Your task to perform on an android device: What is the news today? Image 0: 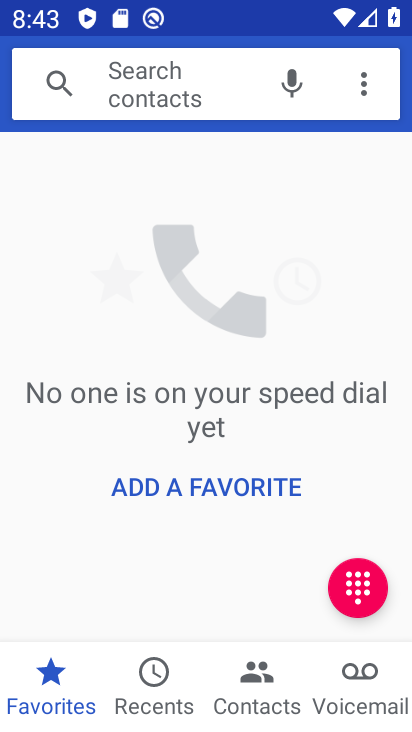
Step 0: press home button
Your task to perform on an android device: What is the news today? Image 1: 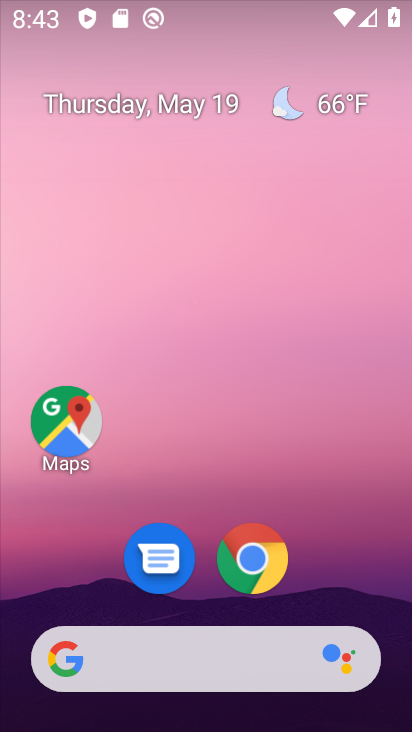
Step 1: drag from (187, 599) to (187, 246)
Your task to perform on an android device: What is the news today? Image 2: 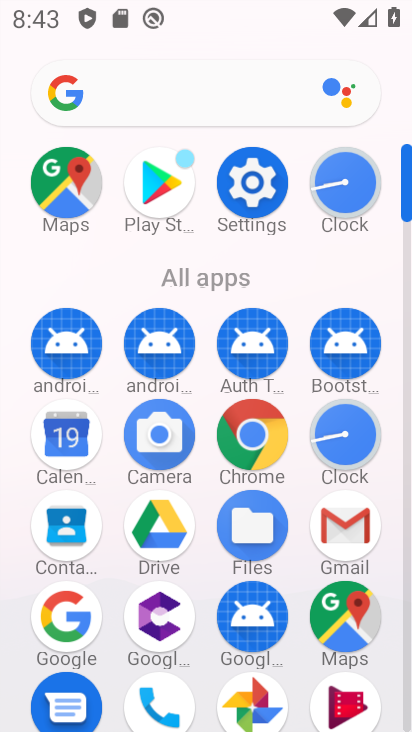
Step 2: click (65, 629)
Your task to perform on an android device: What is the news today? Image 3: 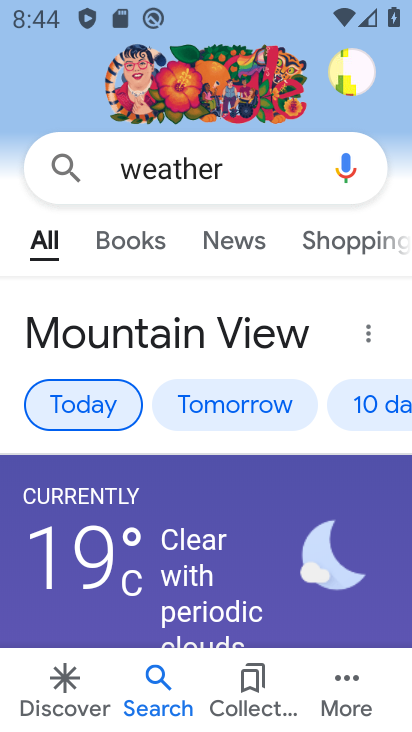
Step 3: click (249, 172)
Your task to perform on an android device: What is the news today? Image 4: 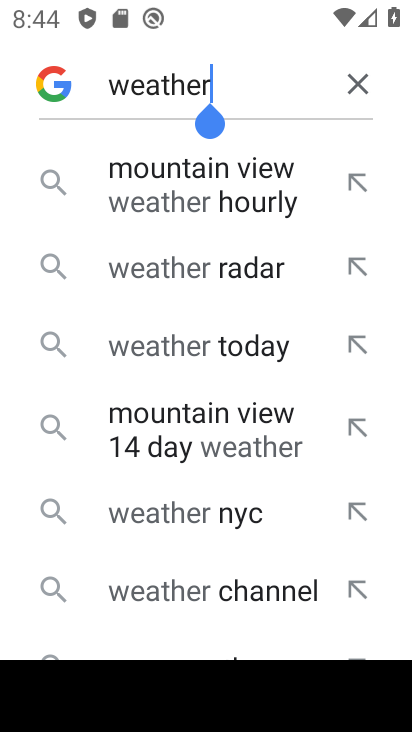
Step 4: click (339, 86)
Your task to perform on an android device: What is the news today? Image 5: 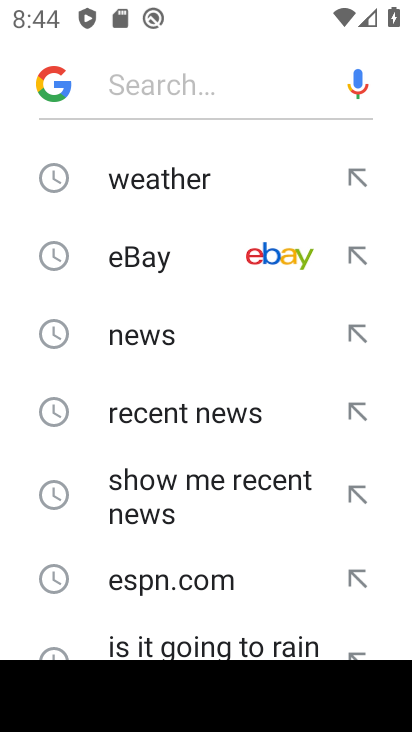
Step 5: click (136, 318)
Your task to perform on an android device: What is the news today? Image 6: 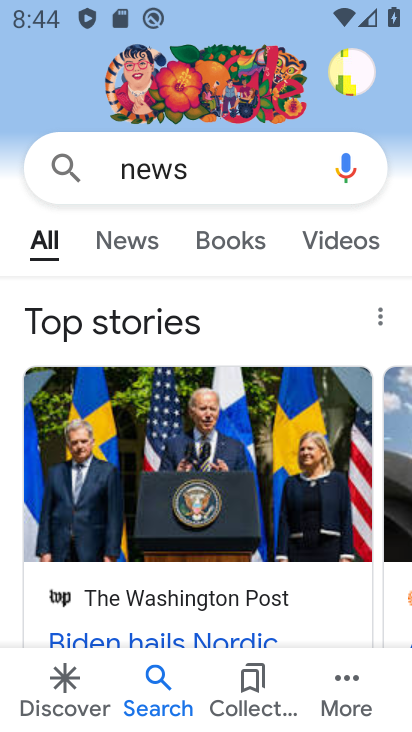
Step 6: click (132, 234)
Your task to perform on an android device: What is the news today? Image 7: 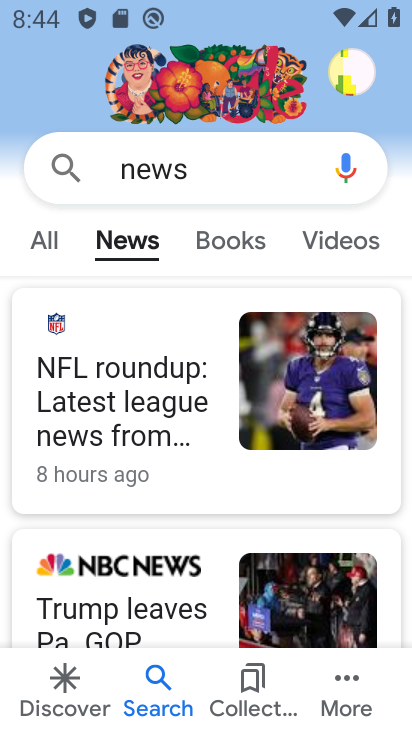
Step 7: task complete